Your task to perform on an android device: Open maps Image 0: 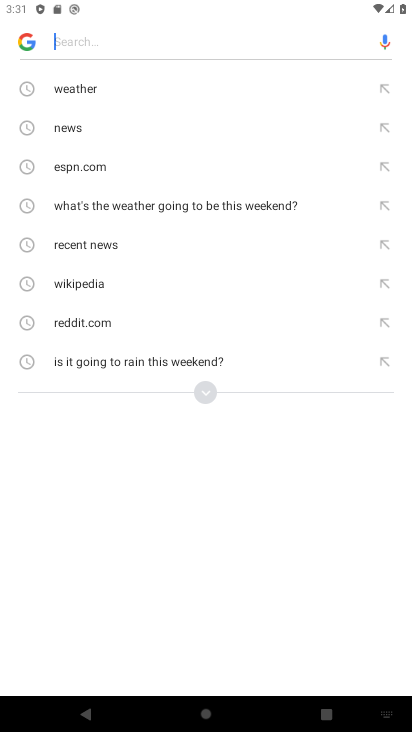
Step 0: press back button
Your task to perform on an android device: Open maps Image 1: 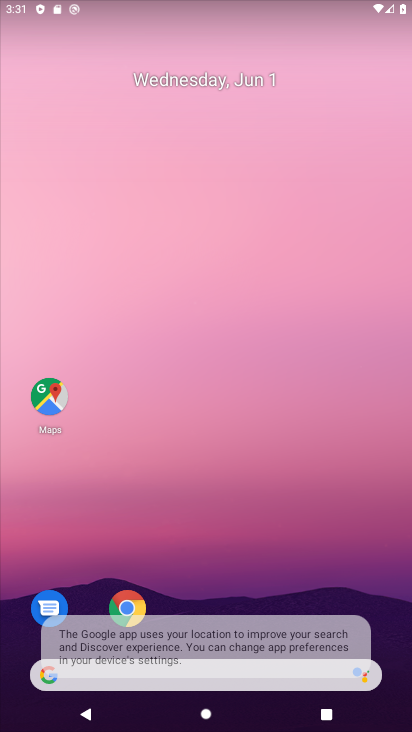
Step 1: click (49, 400)
Your task to perform on an android device: Open maps Image 2: 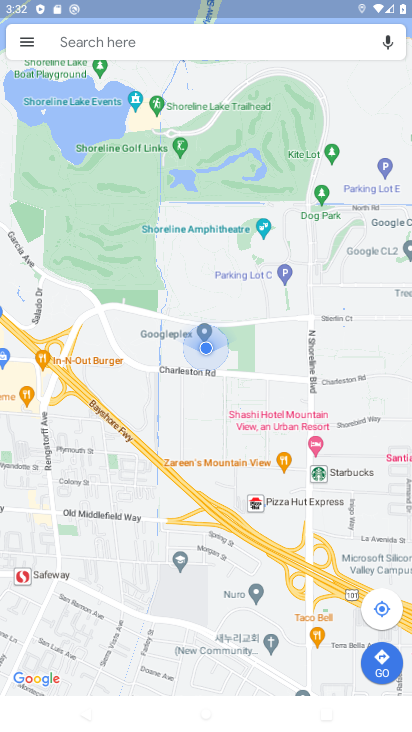
Step 2: task complete